Your task to perform on an android device: change the clock style Image 0: 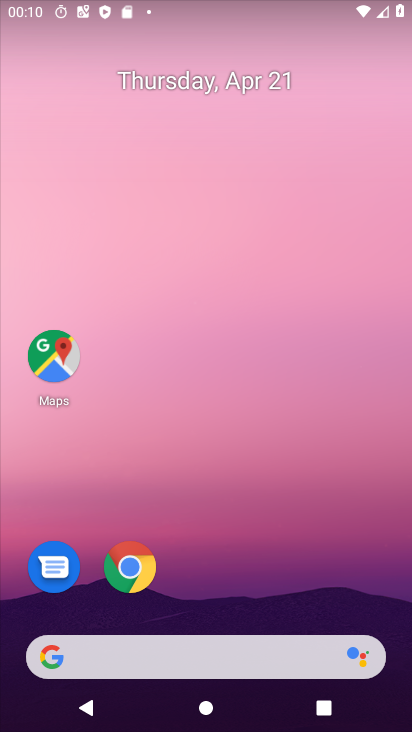
Step 0: drag from (254, 521) to (268, 210)
Your task to perform on an android device: change the clock style Image 1: 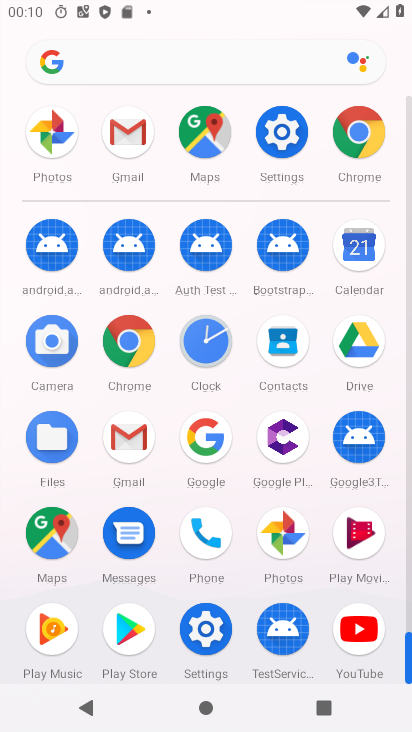
Step 1: click (210, 339)
Your task to perform on an android device: change the clock style Image 2: 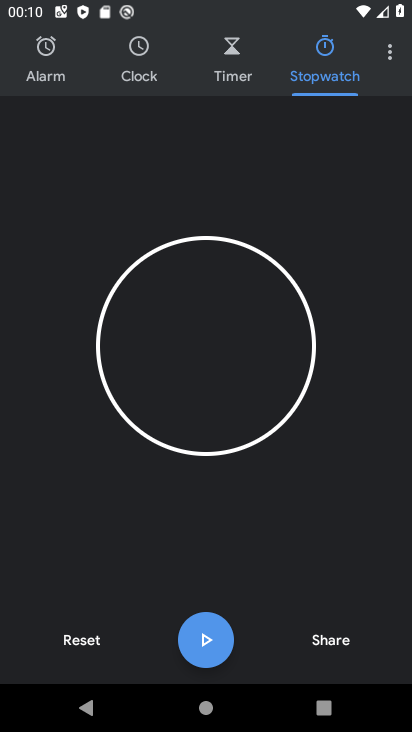
Step 2: click (395, 44)
Your task to perform on an android device: change the clock style Image 3: 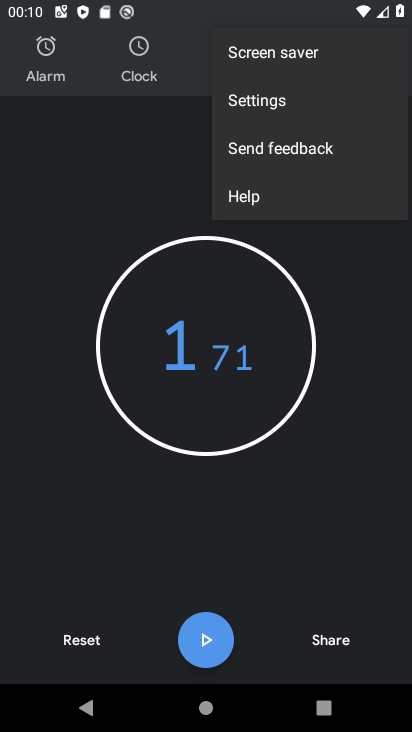
Step 3: click (281, 100)
Your task to perform on an android device: change the clock style Image 4: 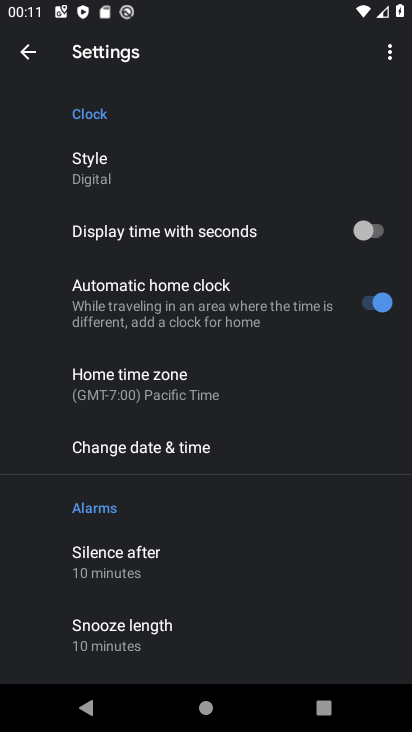
Step 4: click (98, 178)
Your task to perform on an android device: change the clock style Image 5: 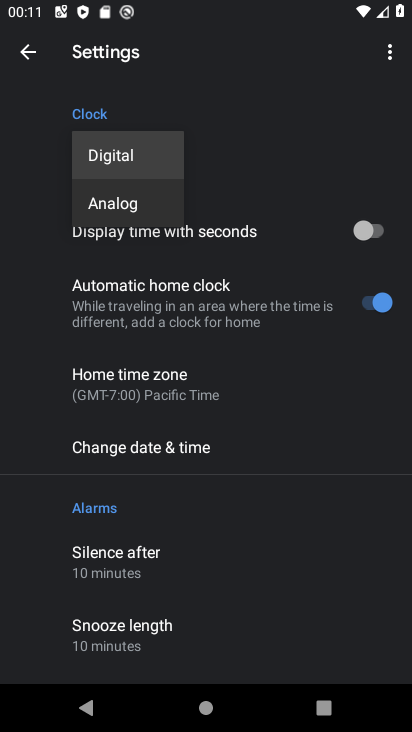
Step 5: click (98, 178)
Your task to perform on an android device: change the clock style Image 6: 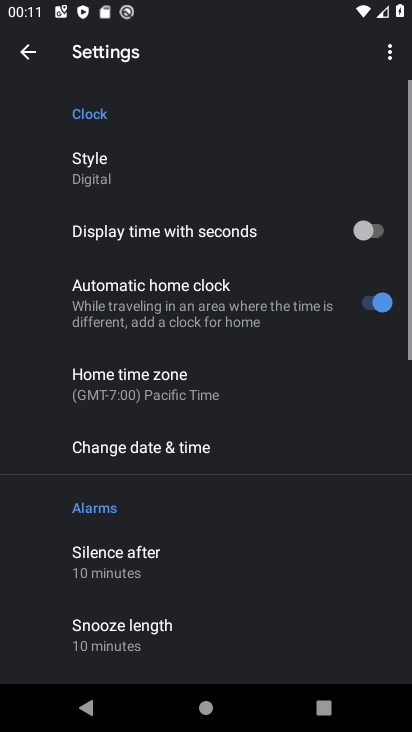
Step 6: click (119, 206)
Your task to perform on an android device: change the clock style Image 7: 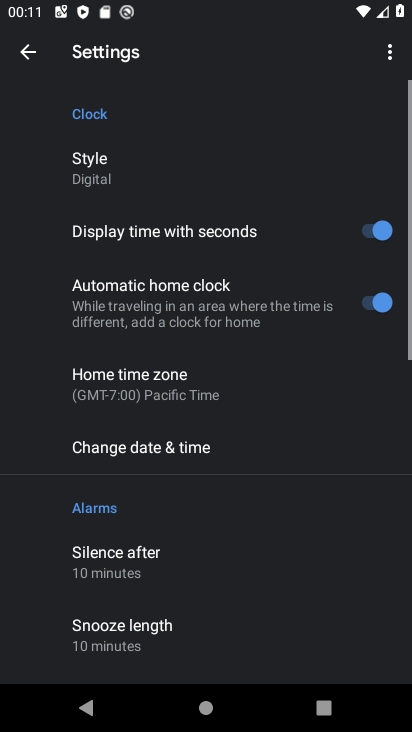
Step 7: click (107, 186)
Your task to perform on an android device: change the clock style Image 8: 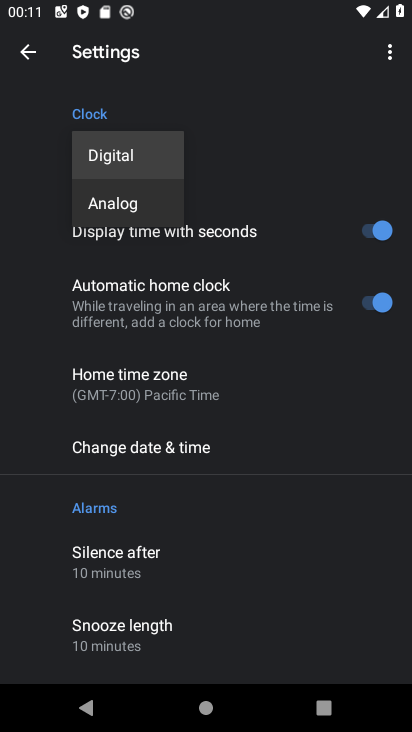
Step 8: click (108, 173)
Your task to perform on an android device: change the clock style Image 9: 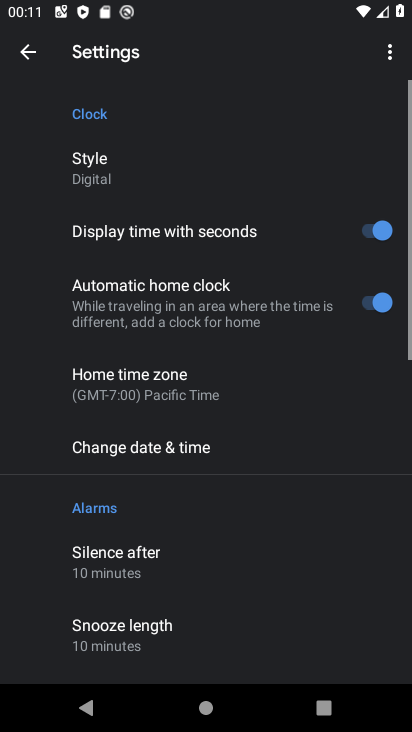
Step 9: click (117, 199)
Your task to perform on an android device: change the clock style Image 10: 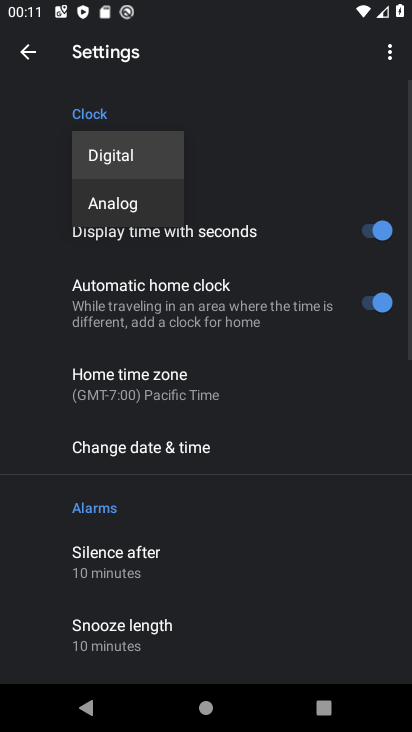
Step 10: click (110, 167)
Your task to perform on an android device: change the clock style Image 11: 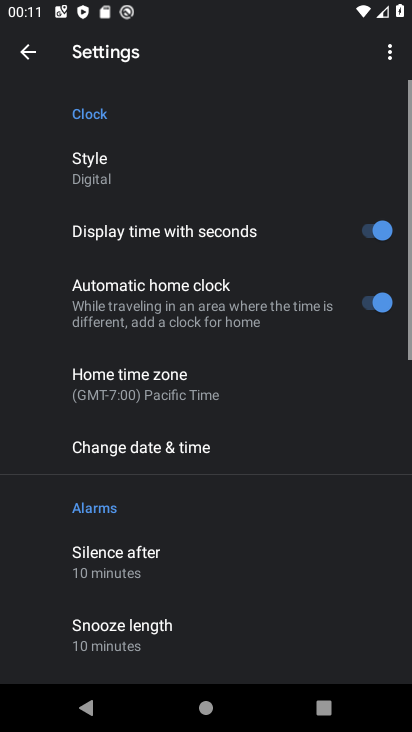
Step 11: click (124, 201)
Your task to perform on an android device: change the clock style Image 12: 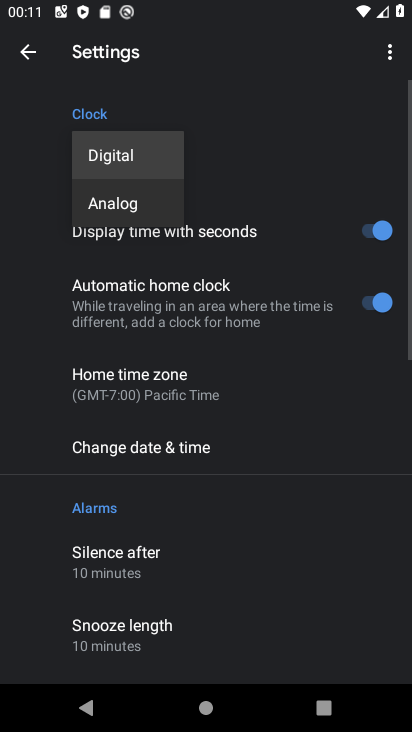
Step 12: click (114, 168)
Your task to perform on an android device: change the clock style Image 13: 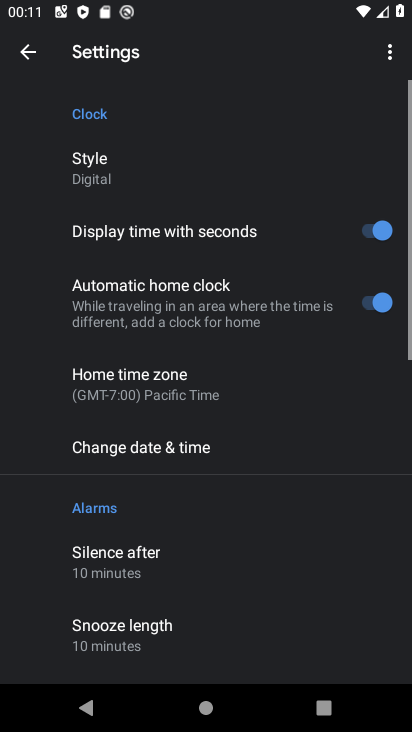
Step 13: click (121, 200)
Your task to perform on an android device: change the clock style Image 14: 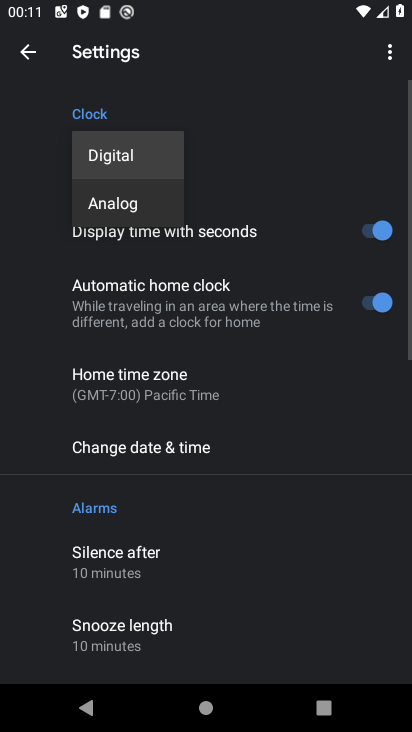
Step 14: click (116, 175)
Your task to perform on an android device: change the clock style Image 15: 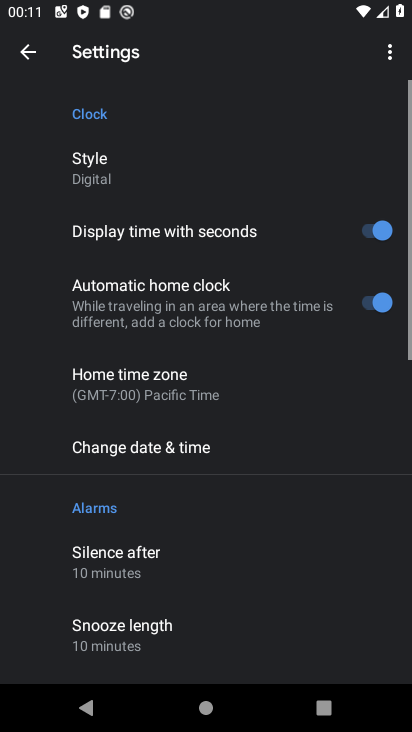
Step 15: click (116, 175)
Your task to perform on an android device: change the clock style Image 16: 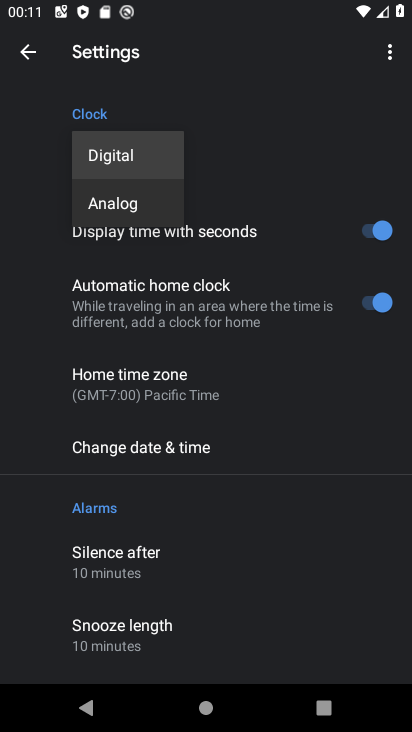
Step 16: click (123, 204)
Your task to perform on an android device: change the clock style Image 17: 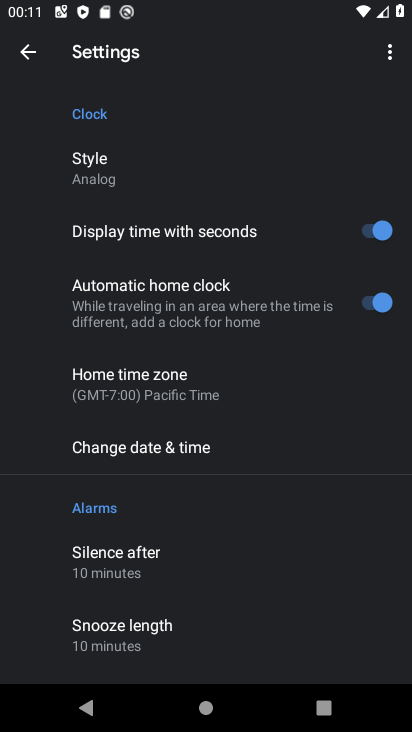
Step 17: task complete